Your task to perform on an android device: Go to Google maps Image 0: 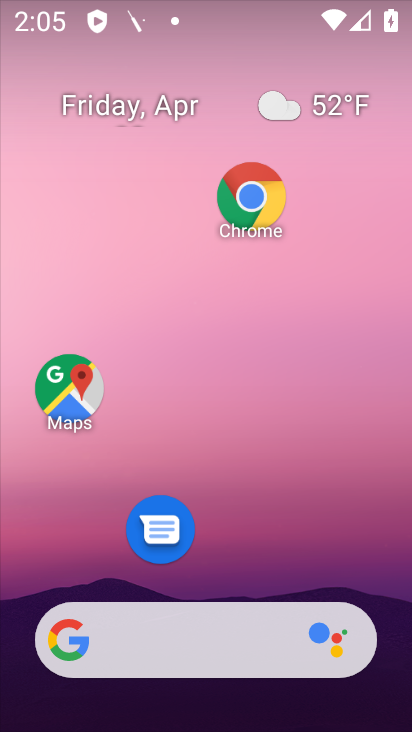
Step 0: click (82, 388)
Your task to perform on an android device: Go to Google maps Image 1: 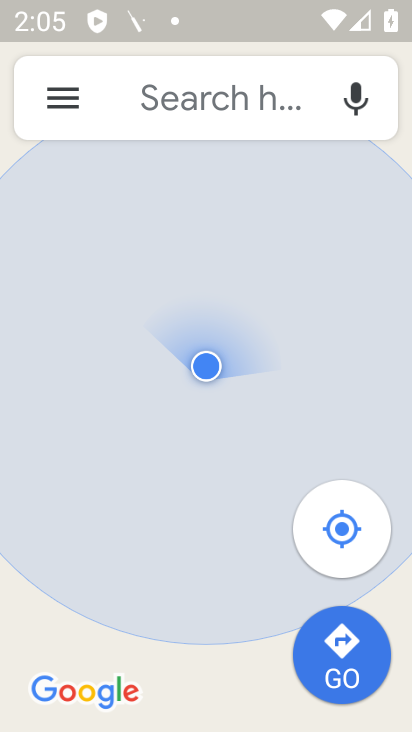
Step 1: click (217, 80)
Your task to perform on an android device: Go to Google maps Image 2: 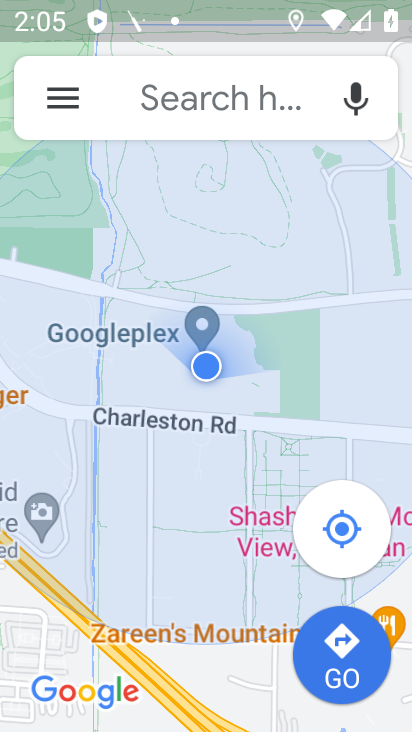
Step 2: task complete